Your task to perform on an android device: turn on priority inbox in the gmail app Image 0: 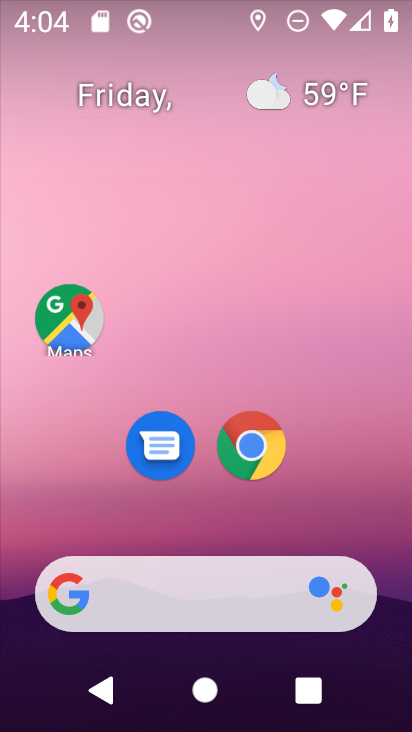
Step 0: drag from (392, 570) to (333, 179)
Your task to perform on an android device: turn on priority inbox in the gmail app Image 1: 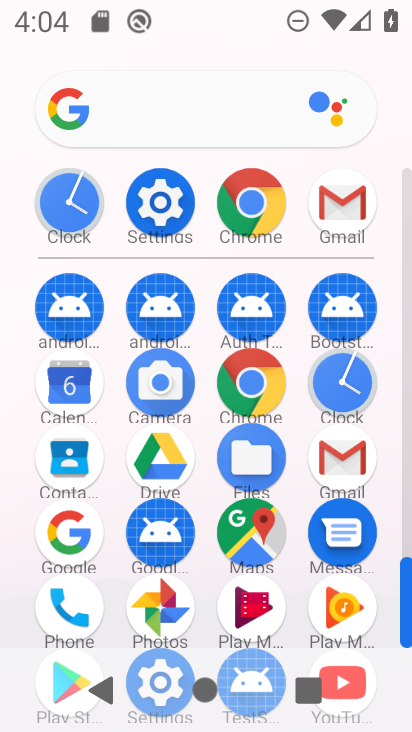
Step 1: click (339, 456)
Your task to perform on an android device: turn on priority inbox in the gmail app Image 2: 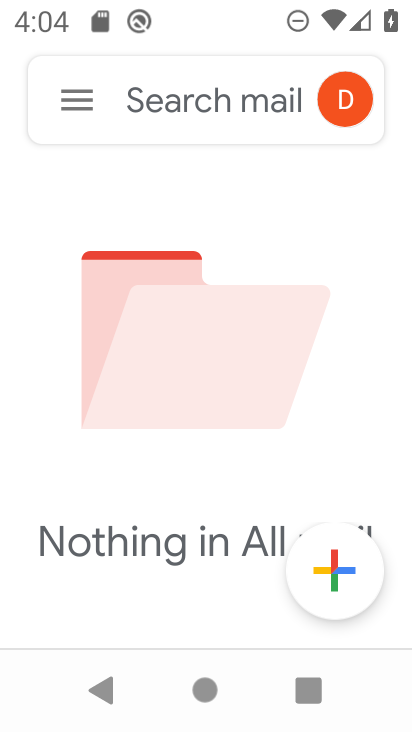
Step 2: click (72, 102)
Your task to perform on an android device: turn on priority inbox in the gmail app Image 3: 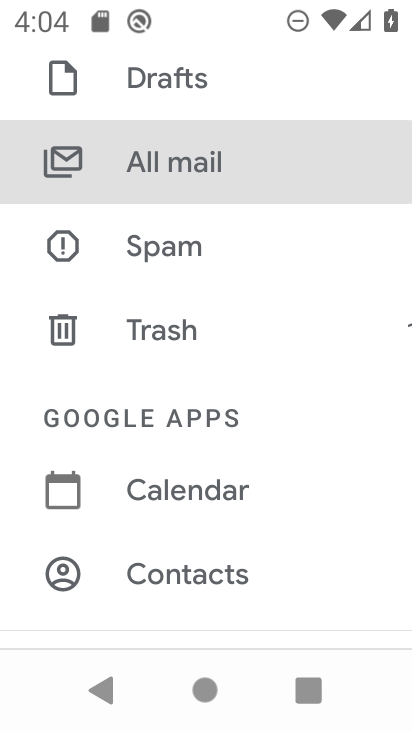
Step 3: drag from (280, 551) to (275, 197)
Your task to perform on an android device: turn on priority inbox in the gmail app Image 4: 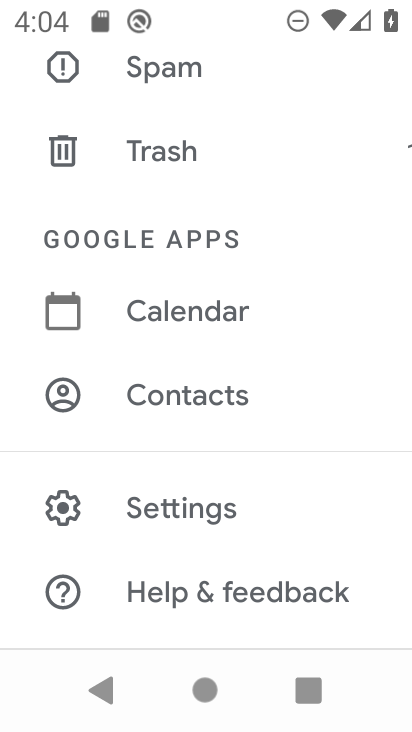
Step 4: click (161, 506)
Your task to perform on an android device: turn on priority inbox in the gmail app Image 5: 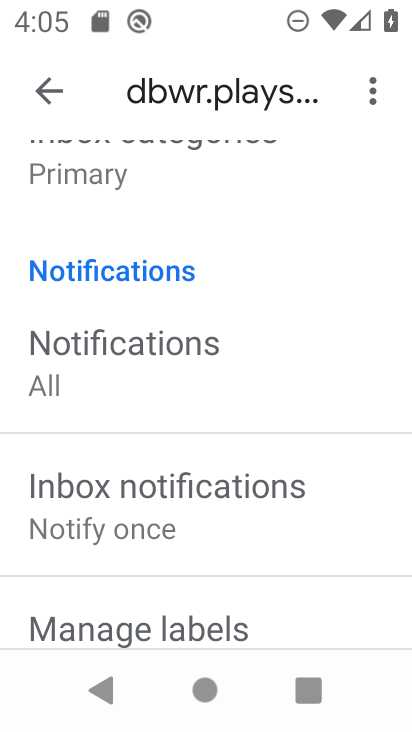
Step 5: drag from (277, 279) to (255, 492)
Your task to perform on an android device: turn on priority inbox in the gmail app Image 6: 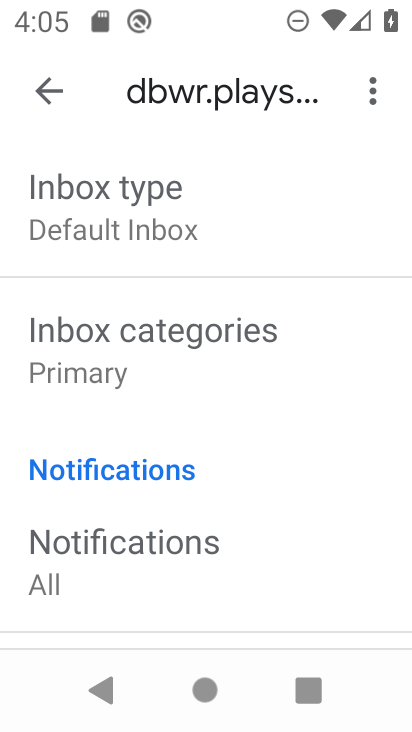
Step 6: drag from (284, 259) to (254, 496)
Your task to perform on an android device: turn on priority inbox in the gmail app Image 7: 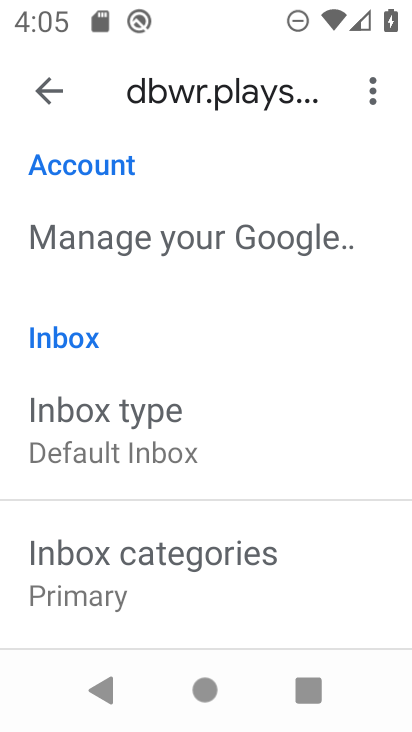
Step 7: drag from (337, 230) to (276, 315)
Your task to perform on an android device: turn on priority inbox in the gmail app Image 8: 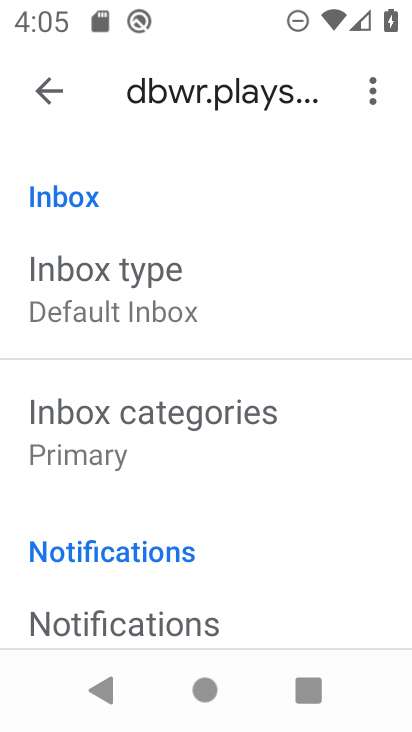
Step 8: click (80, 297)
Your task to perform on an android device: turn on priority inbox in the gmail app Image 9: 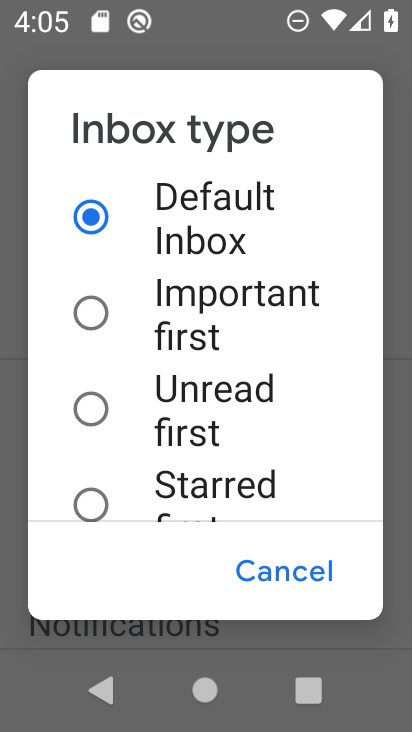
Step 9: drag from (103, 496) to (154, 135)
Your task to perform on an android device: turn on priority inbox in the gmail app Image 10: 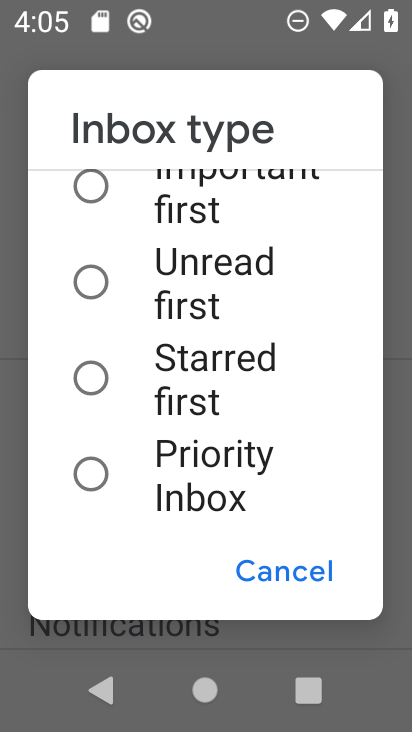
Step 10: click (95, 470)
Your task to perform on an android device: turn on priority inbox in the gmail app Image 11: 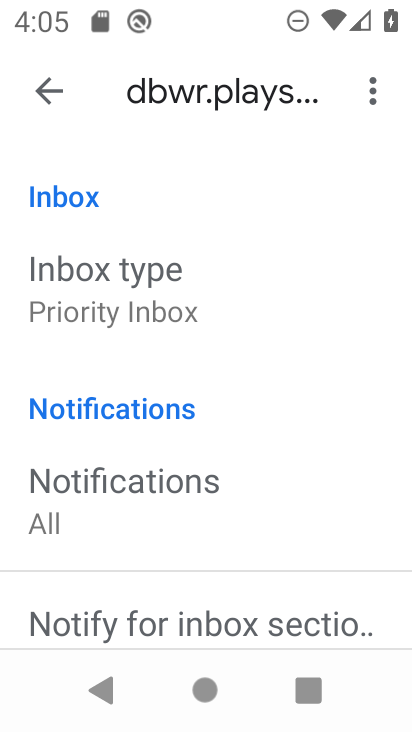
Step 11: task complete